Your task to perform on an android device: refresh tabs in the chrome app Image 0: 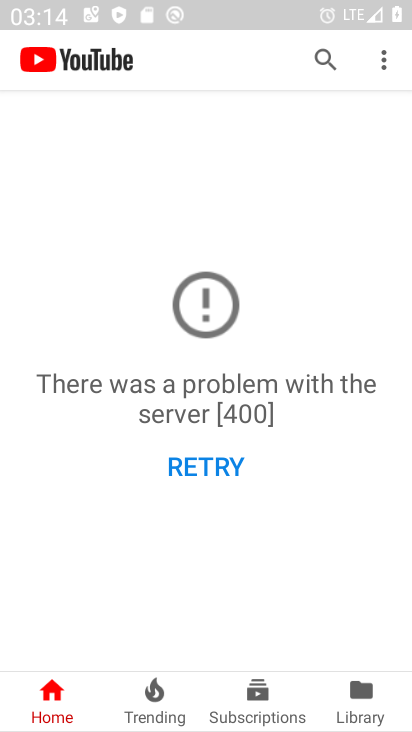
Step 0: press back button
Your task to perform on an android device: refresh tabs in the chrome app Image 1: 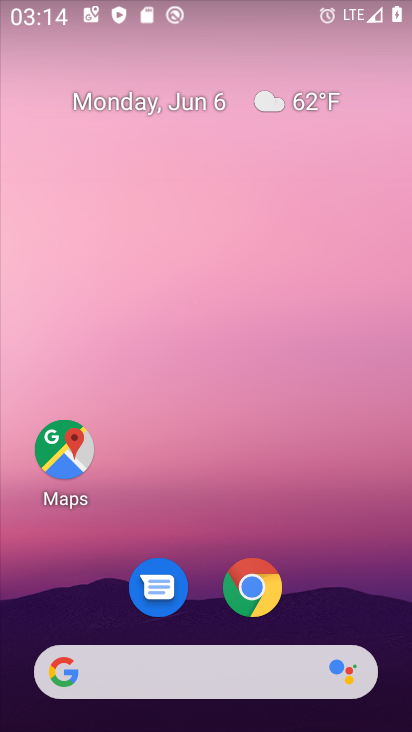
Step 1: drag from (321, 534) to (252, 17)
Your task to perform on an android device: refresh tabs in the chrome app Image 2: 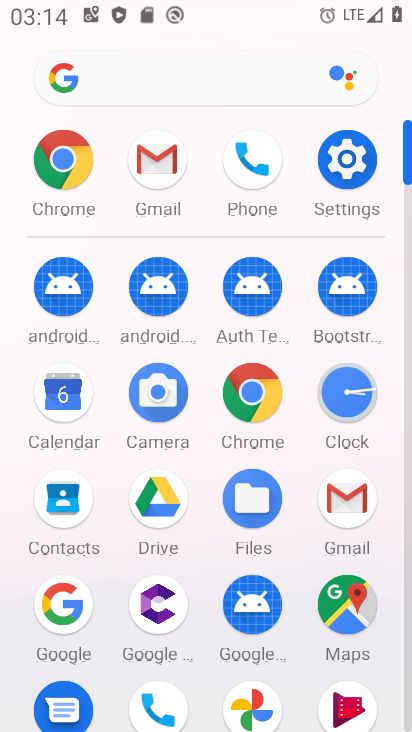
Step 2: click (252, 389)
Your task to perform on an android device: refresh tabs in the chrome app Image 3: 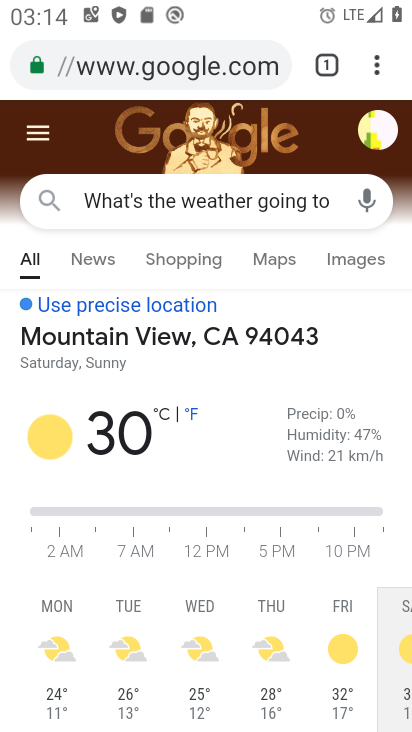
Step 3: drag from (369, 52) to (215, 624)
Your task to perform on an android device: refresh tabs in the chrome app Image 4: 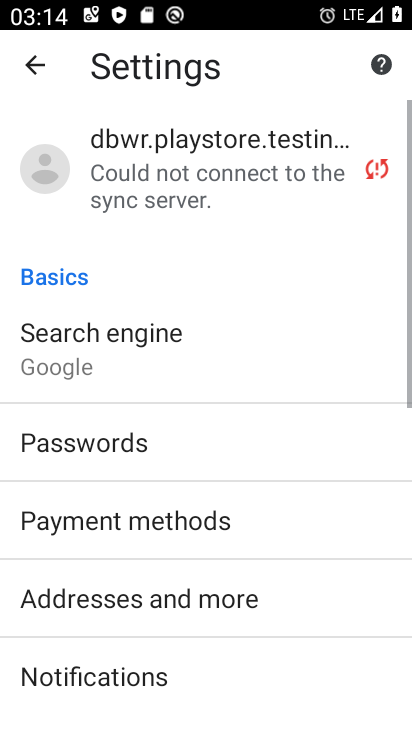
Step 4: click (45, 68)
Your task to perform on an android device: refresh tabs in the chrome app Image 5: 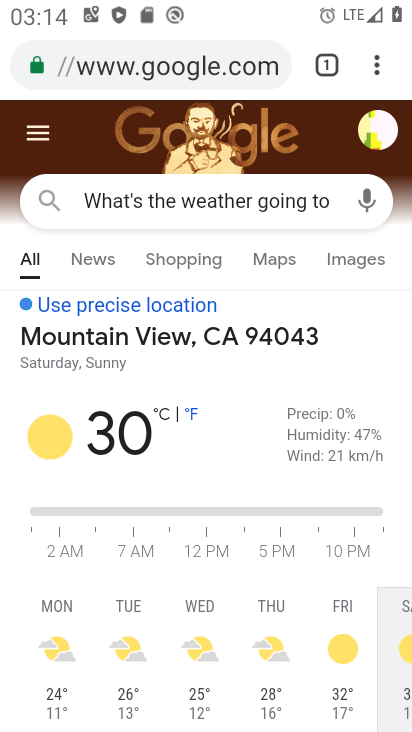
Step 5: click (380, 61)
Your task to perform on an android device: refresh tabs in the chrome app Image 6: 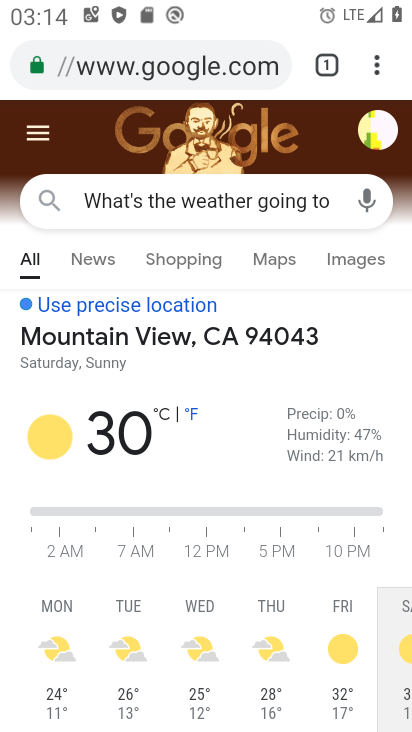
Step 6: task complete